Your task to perform on an android device: star an email in the gmail app Image 0: 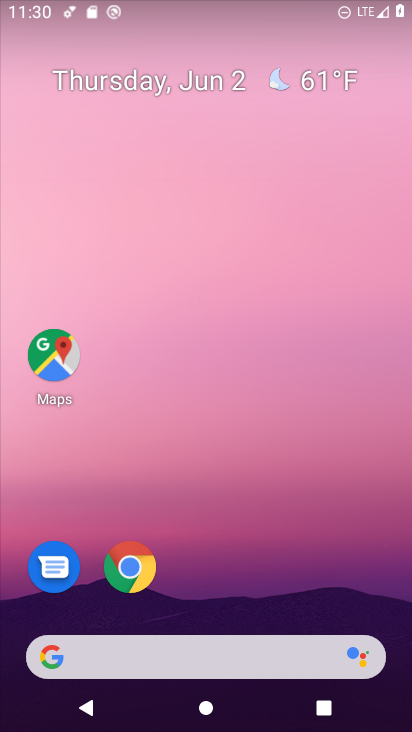
Step 0: drag from (239, 490) to (249, 96)
Your task to perform on an android device: star an email in the gmail app Image 1: 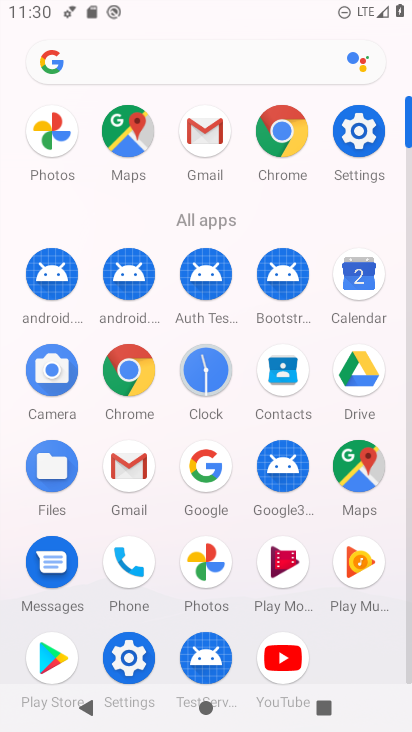
Step 1: click (203, 132)
Your task to perform on an android device: star an email in the gmail app Image 2: 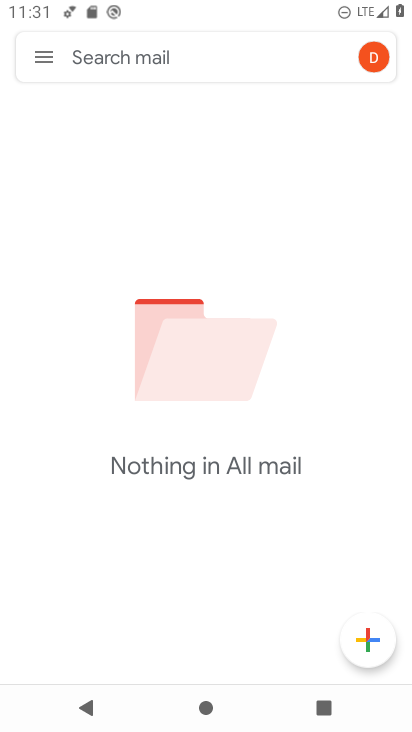
Step 2: task complete